Your task to perform on an android device: Open settings Image 0: 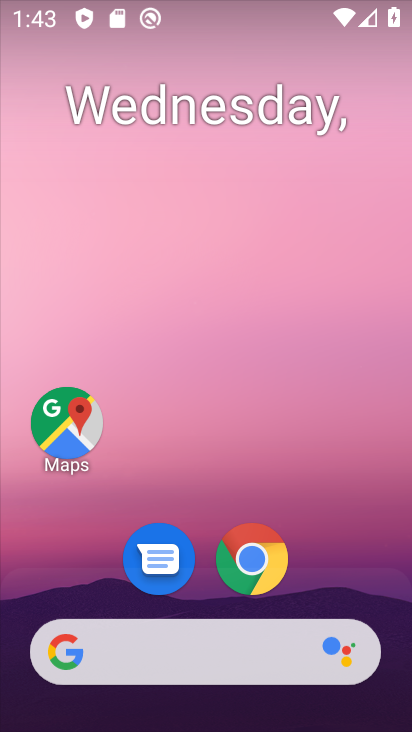
Step 0: drag from (334, 566) to (299, 63)
Your task to perform on an android device: Open settings Image 1: 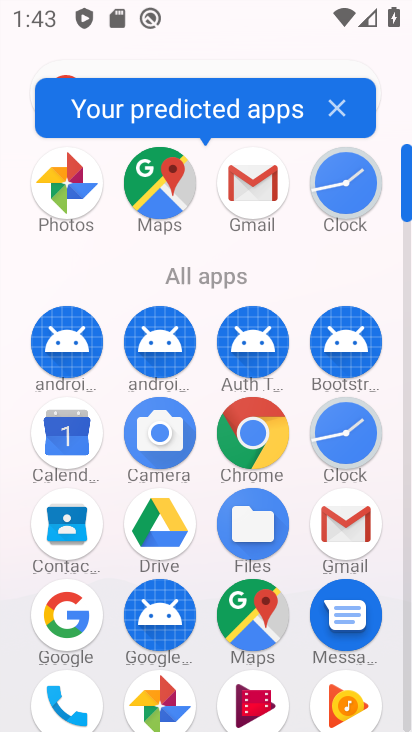
Step 1: drag from (298, 292) to (306, 62)
Your task to perform on an android device: Open settings Image 2: 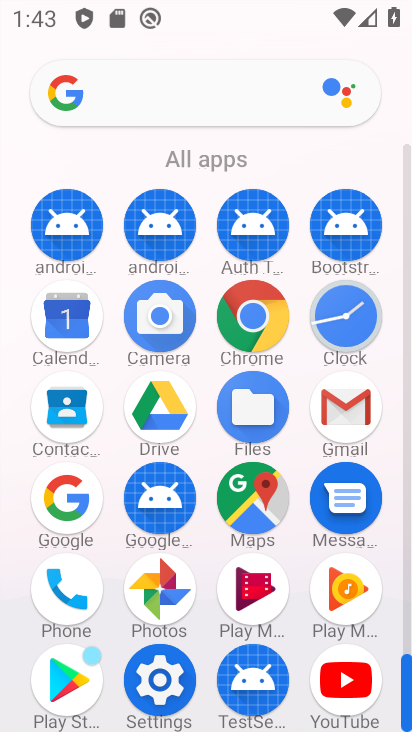
Step 2: click (156, 679)
Your task to perform on an android device: Open settings Image 3: 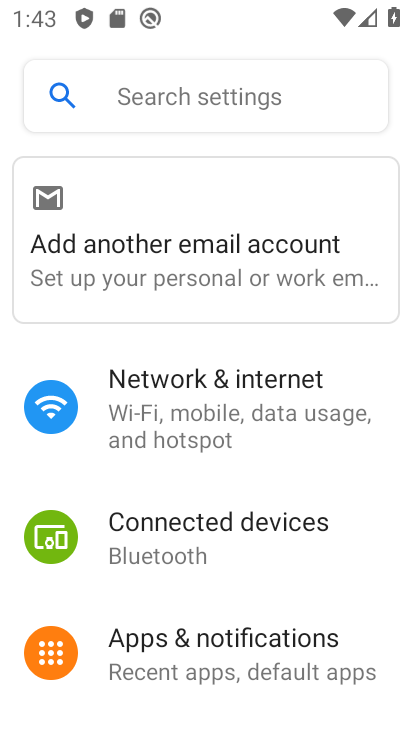
Step 3: task complete